Your task to perform on an android device: Open Google Maps Image 0: 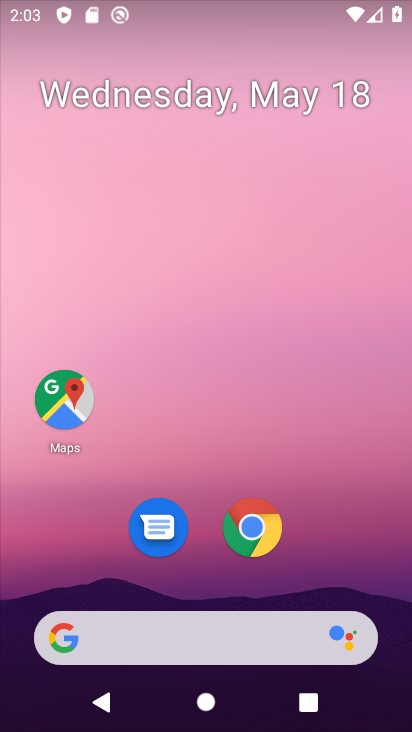
Step 0: click (68, 421)
Your task to perform on an android device: Open Google Maps Image 1: 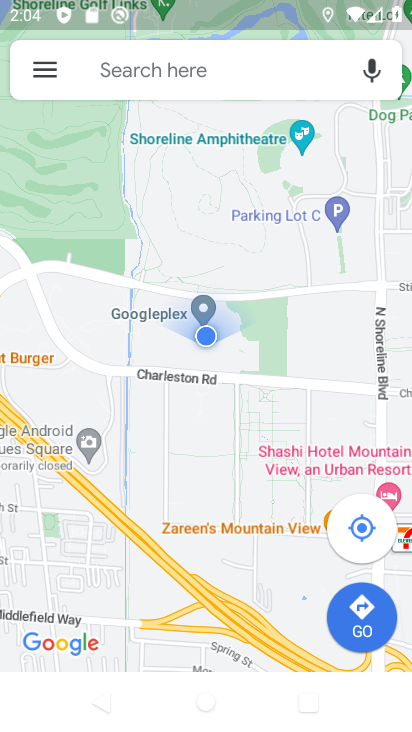
Step 1: task complete